Your task to perform on an android device: Set the phone to "Do not disturb". Image 0: 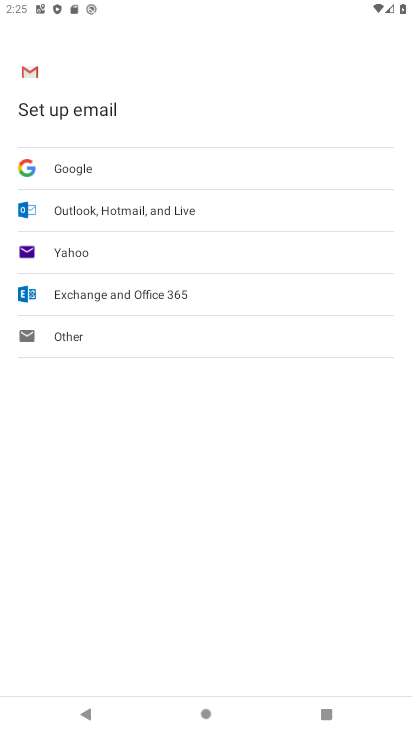
Step 0: press home button
Your task to perform on an android device: Set the phone to "Do not disturb". Image 1: 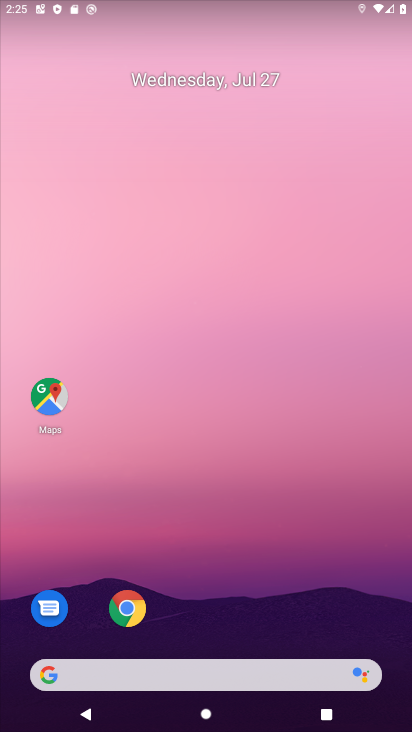
Step 1: drag from (274, 7) to (338, 581)
Your task to perform on an android device: Set the phone to "Do not disturb". Image 2: 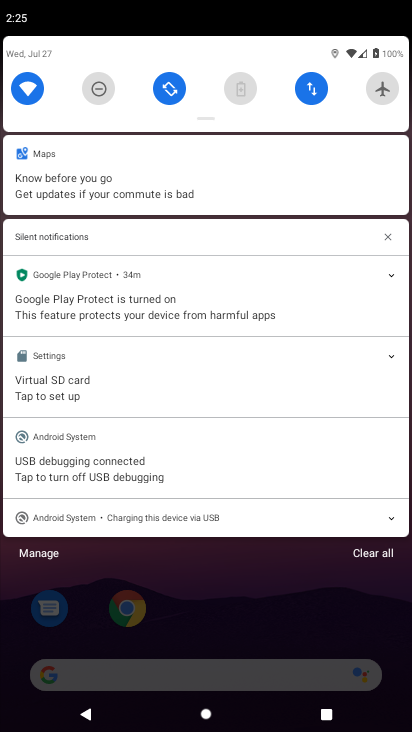
Step 2: click (95, 88)
Your task to perform on an android device: Set the phone to "Do not disturb". Image 3: 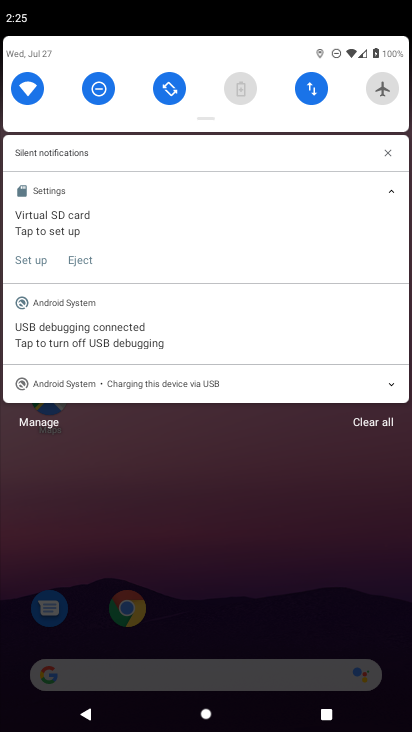
Step 3: task complete